Your task to perform on an android device: Find coffee shops on Maps Image 0: 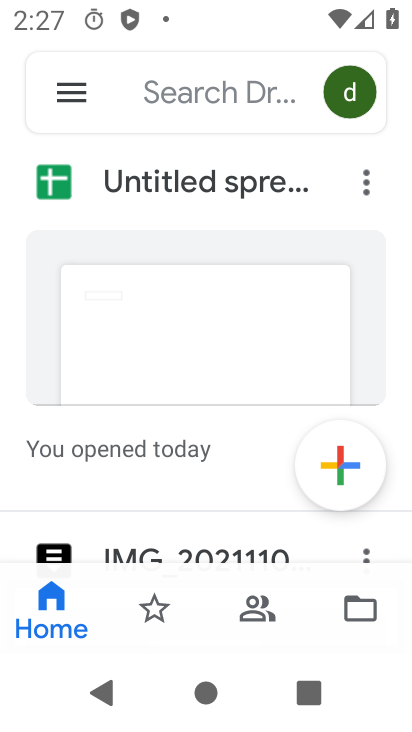
Step 0: press home button
Your task to perform on an android device: Find coffee shops on Maps Image 1: 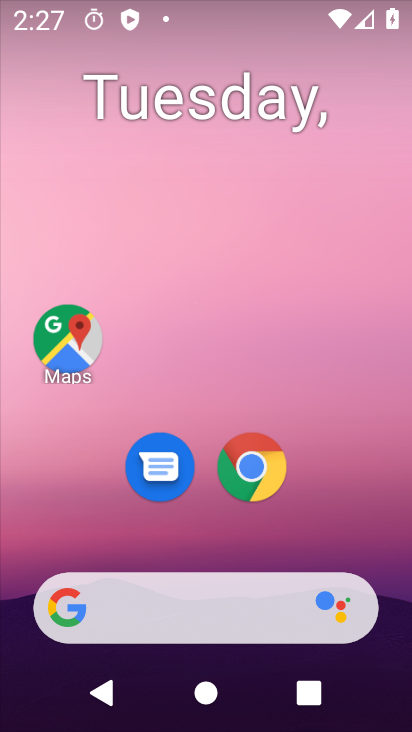
Step 1: drag from (368, 502) to (344, 78)
Your task to perform on an android device: Find coffee shops on Maps Image 2: 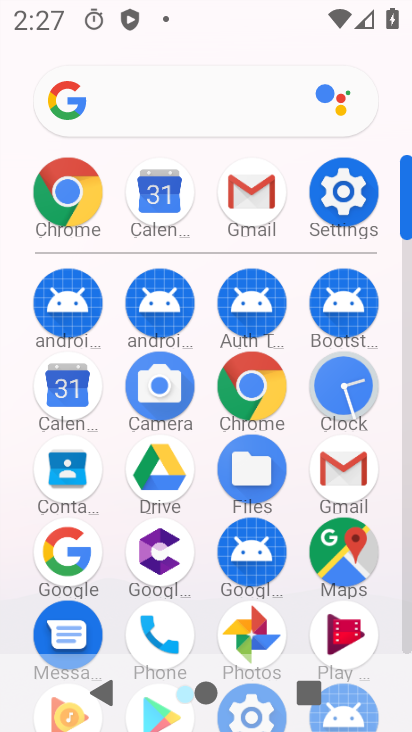
Step 2: click (365, 565)
Your task to perform on an android device: Find coffee shops on Maps Image 3: 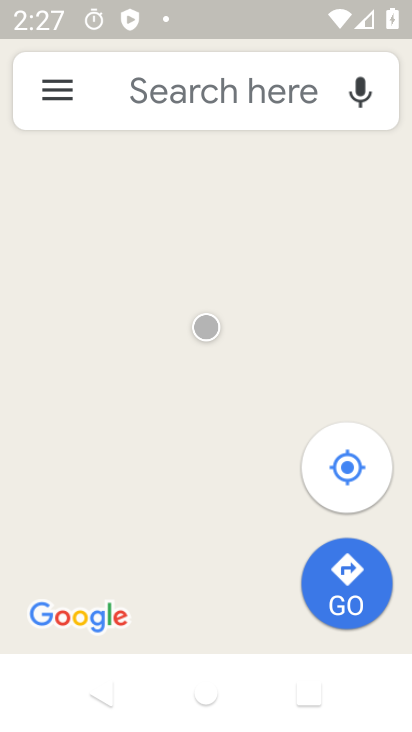
Step 3: click (200, 98)
Your task to perform on an android device: Find coffee shops on Maps Image 4: 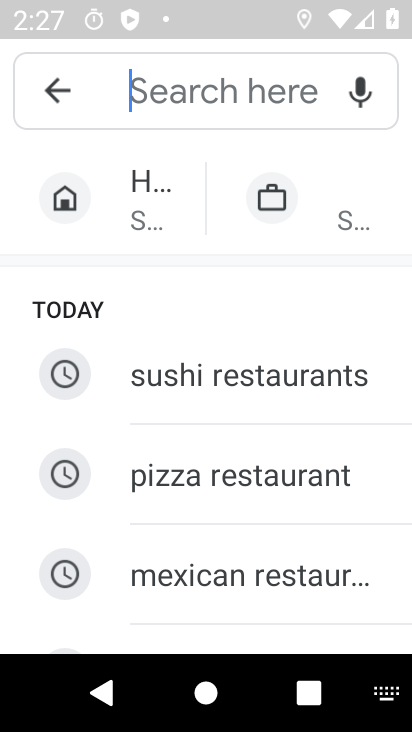
Step 4: type "coffee"
Your task to perform on an android device: Find coffee shops on Maps Image 5: 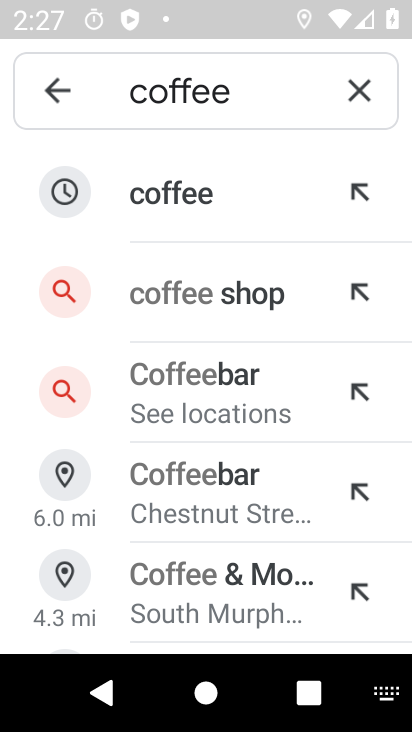
Step 5: click (253, 206)
Your task to perform on an android device: Find coffee shops on Maps Image 6: 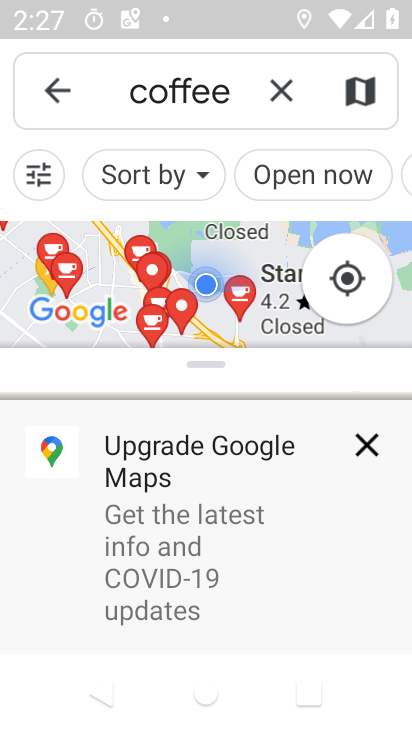
Step 6: task complete